Your task to perform on an android device: What's the weather today? Image 0: 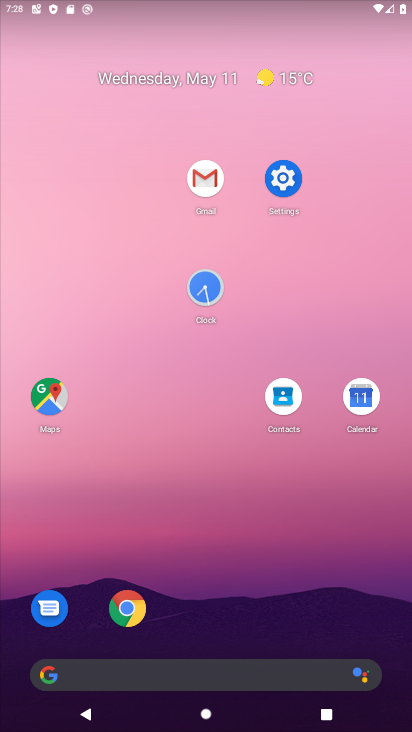
Step 0: click (237, 672)
Your task to perform on an android device: What's the weather today? Image 1: 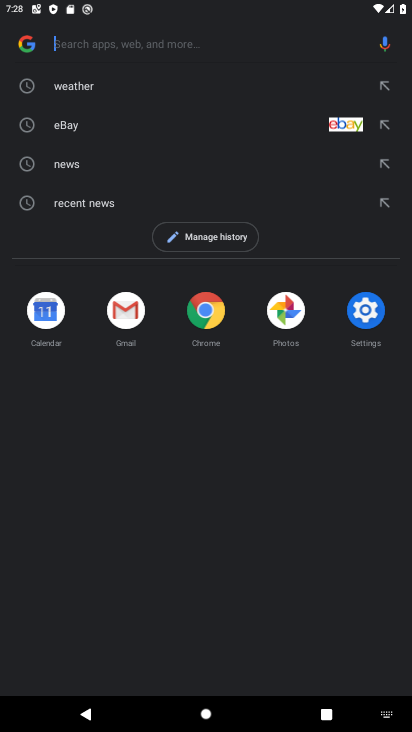
Step 1: click (190, 97)
Your task to perform on an android device: What's the weather today? Image 2: 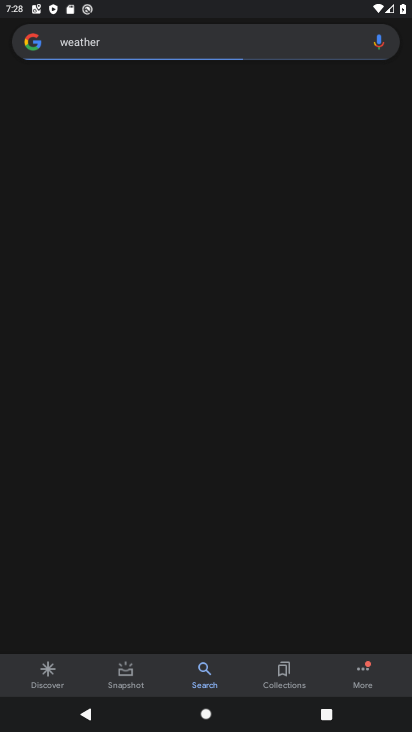
Step 2: task complete